Your task to perform on an android device: add a contact in the contacts app Image 0: 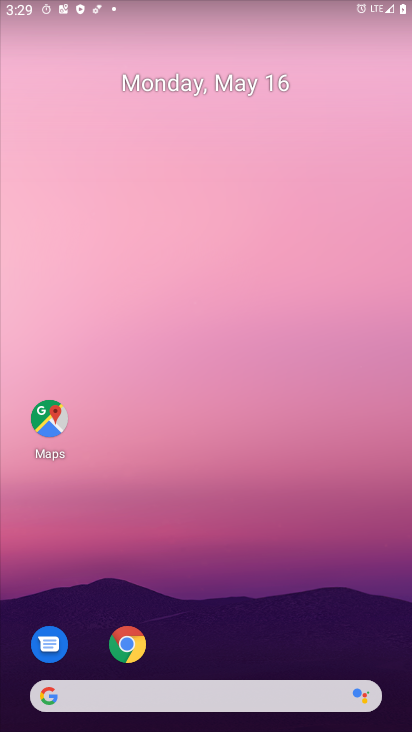
Step 0: drag from (243, 632) to (284, 234)
Your task to perform on an android device: add a contact in the contacts app Image 1: 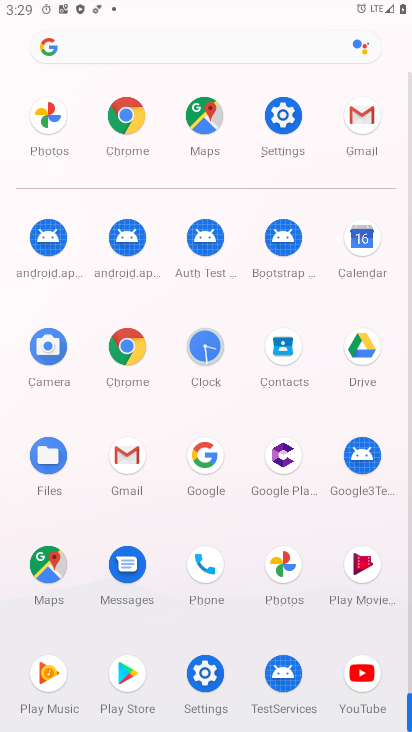
Step 1: click (271, 367)
Your task to perform on an android device: add a contact in the contacts app Image 2: 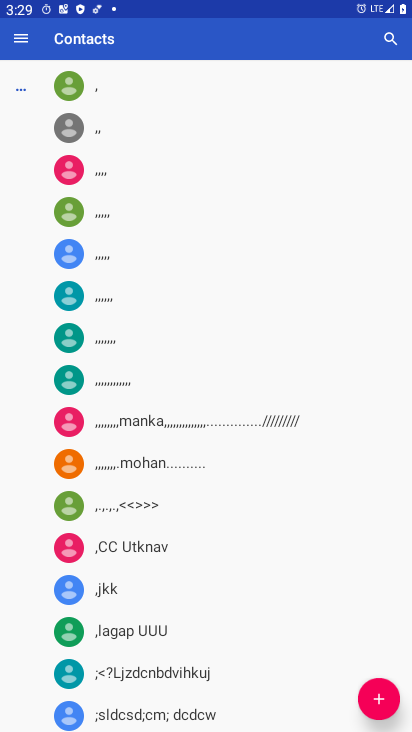
Step 2: drag from (209, 550) to (216, 290)
Your task to perform on an android device: add a contact in the contacts app Image 3: 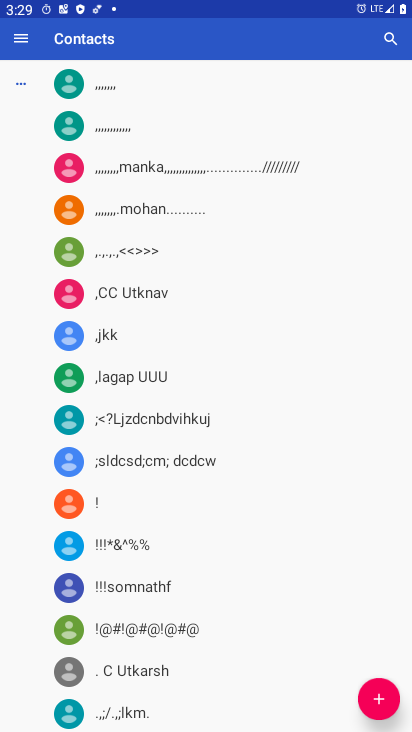
Step 3: click (375, 689)
Your task to perform on an android device: add a contact in the contacts app Image 4: 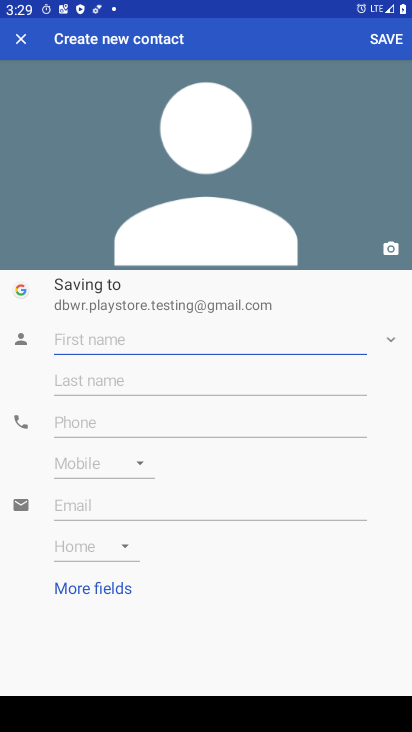
Step 4: type "iudfhiebf"
Your task to perform on an android device: add a contact in the contacts app Image 5: 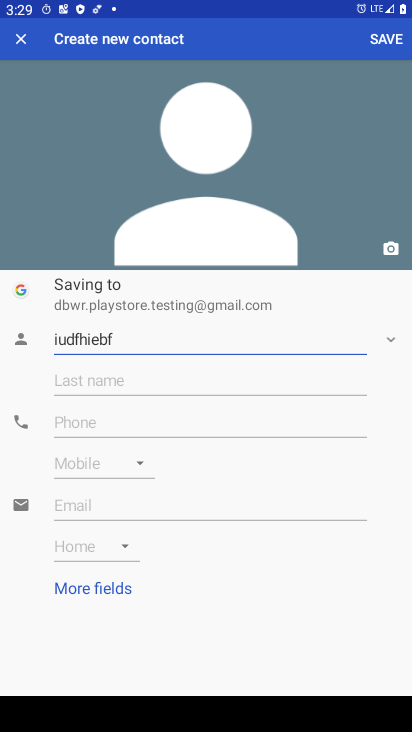
Step 5: click (119, 414)
Your task to perform on an android device: add a contact in the contacts app Image 6: 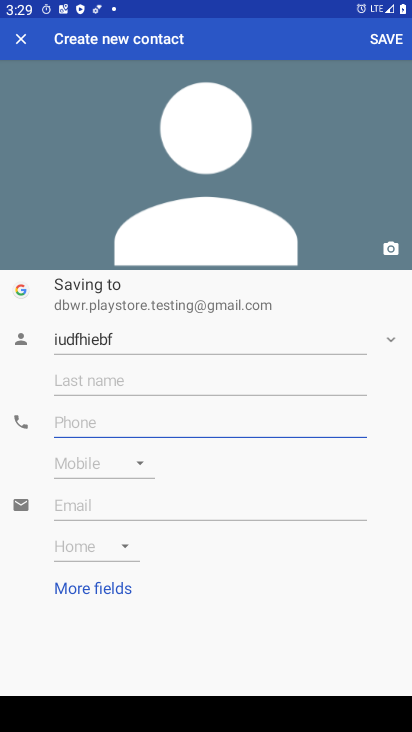
Step 6: type "4867865"
Your task to perform on an android device: add a contact in the contacts app Image 7: 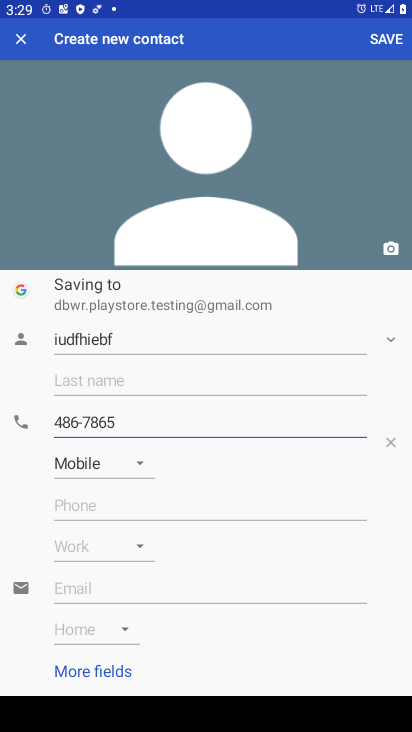
Step 7: click (384, 35)
Your task to perform on an android device: add a contact in the contacts app Image 8: 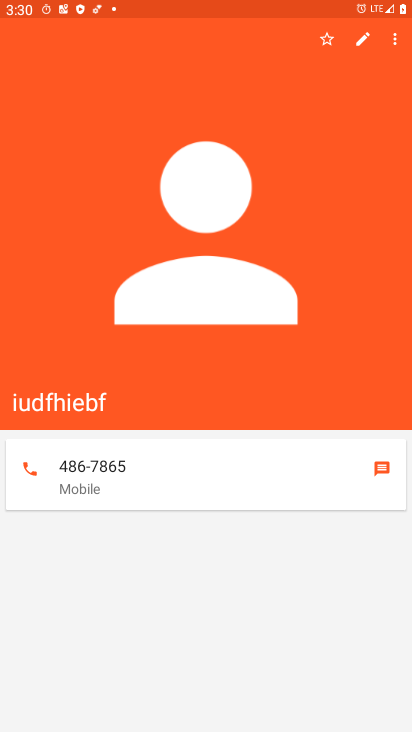
Step 8: task complete